Your task to perform on an android device: check storage Image 0: 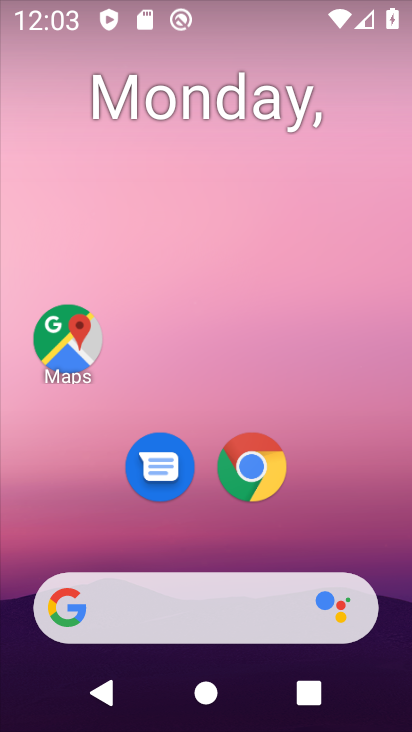
Step 0: drag from (395, 607) to (353, 33)
Your task to perform on an android device: check storage Image 1: 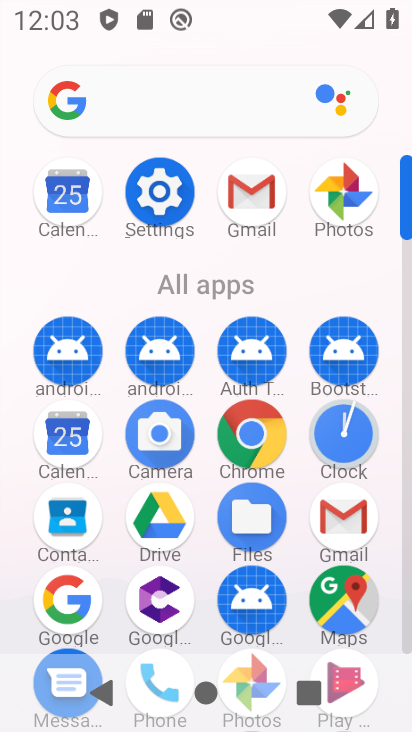
Step 1: click (405, 634)
Your task to perform on an android device: check storage Image 2: 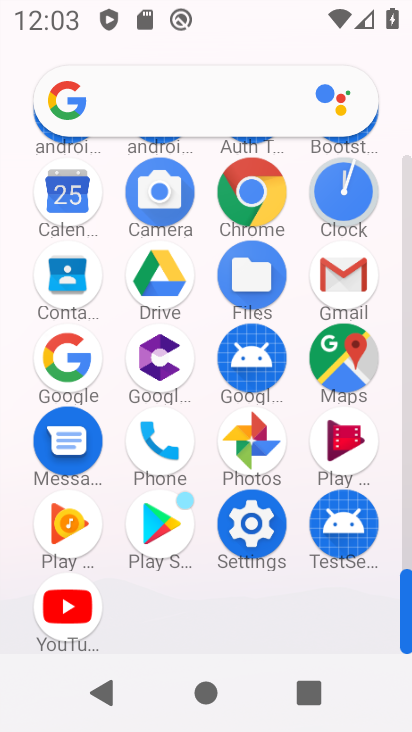
Step 2: click (247, 523)
Your task to perform on an android device: check storage Image 3: 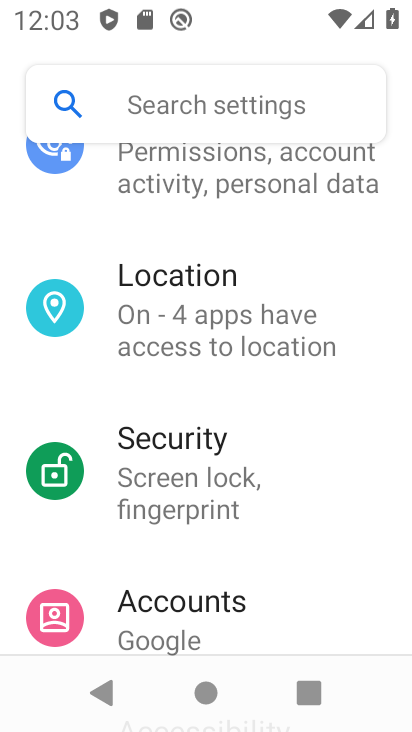
Step 3: drag from (324, 211) to (313, 449)
Your task to perform on an android device: check storage Image 4: 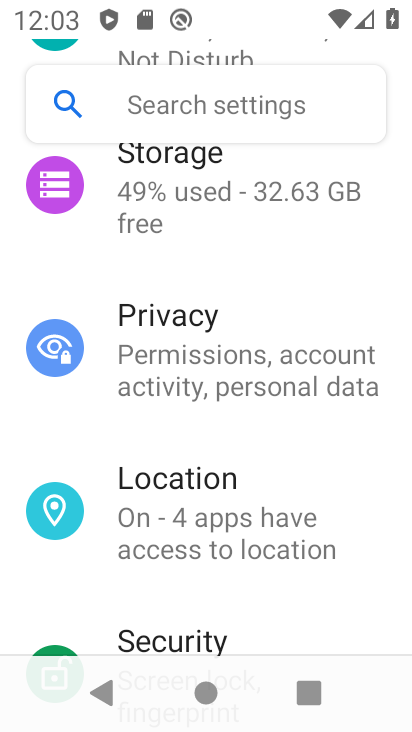
Step 4: drag from (331, 213) to (311, 459)
Your task to perform on an android device: check storage Image 5: 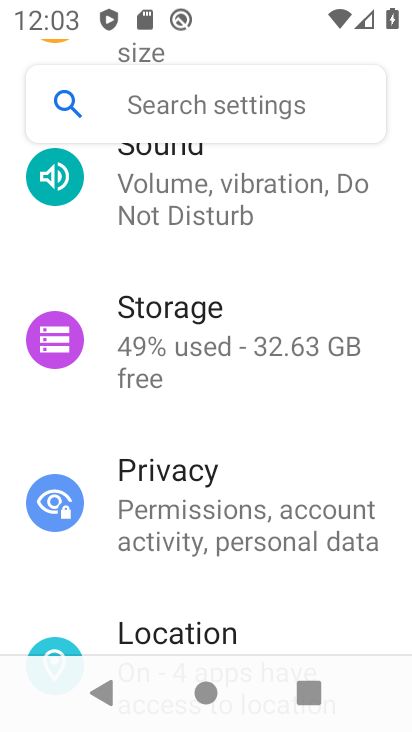
Step 5: click (170, 332)
Your task to perform on an android device: check storage Image 6: 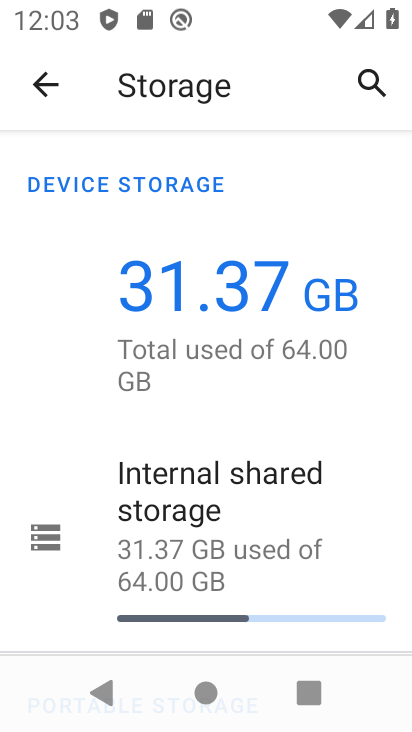
Step 6: task complete